Your task to perform on an android device: delete browsing data in the chrome app Image 0: 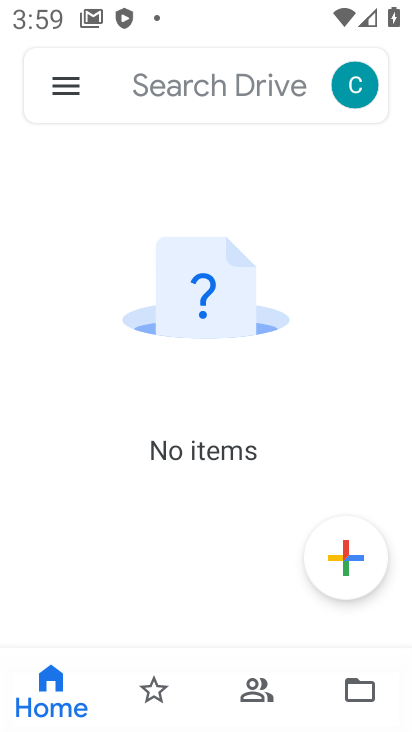
Step 0: press back button
Your task to perform on an android device: delete browsing data in the chrome app Image 1: 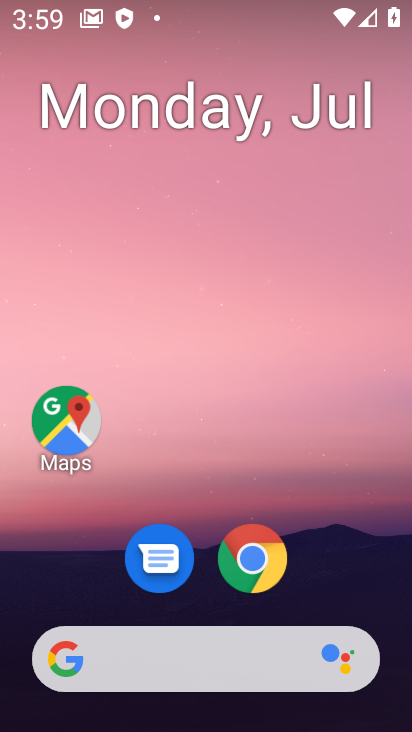
Step 1: click (229, 562)
Your task to perform on an android device: delete browsing data in the chrome app Image 2: 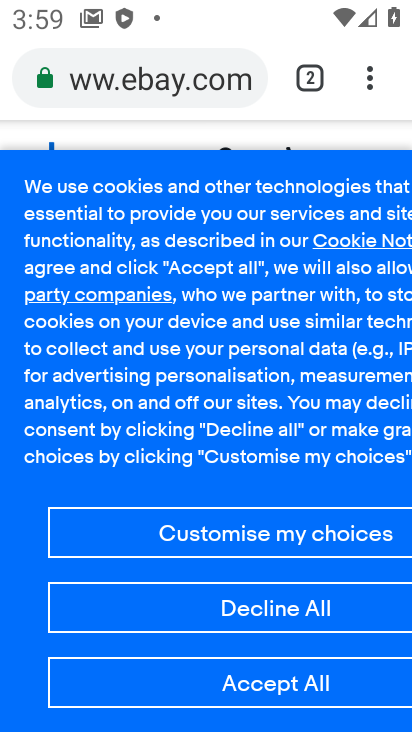
Step 2: drag from (374, 74) to (116, 264)
Your task to perform on an android device: delete browsing data in the chrome app Image 3: 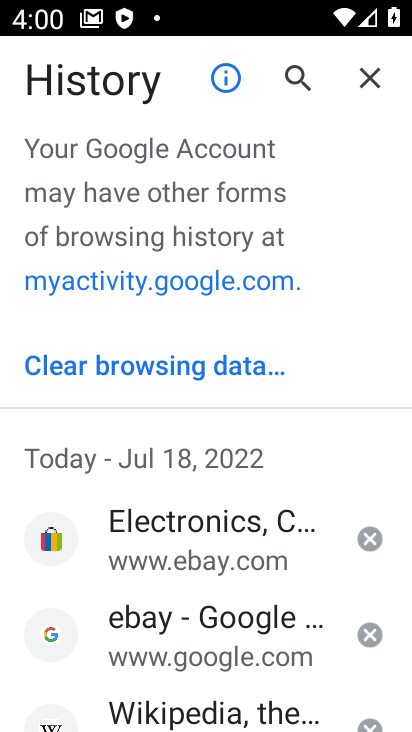
Step 3: click (82, 372)
Your task to perform on an android device: delete browsing data in the chrome app Image 4: 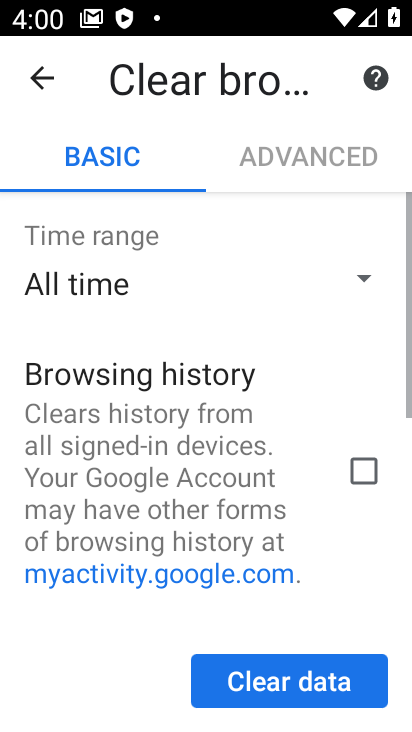
Step 4: drag from (226, 521) to (255, 372)
Your task to perform on an android device: delete browsing data in the chrome app Image 5: 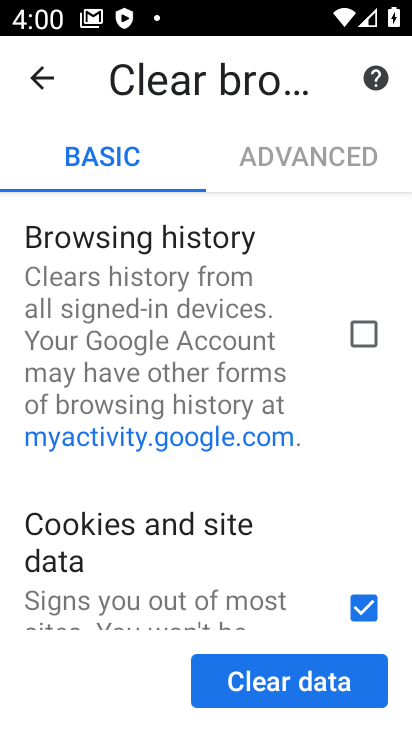
Step 5: click (373, 323)
Your task to perform on an android device: delete browsing data in the chrome app Image 6: 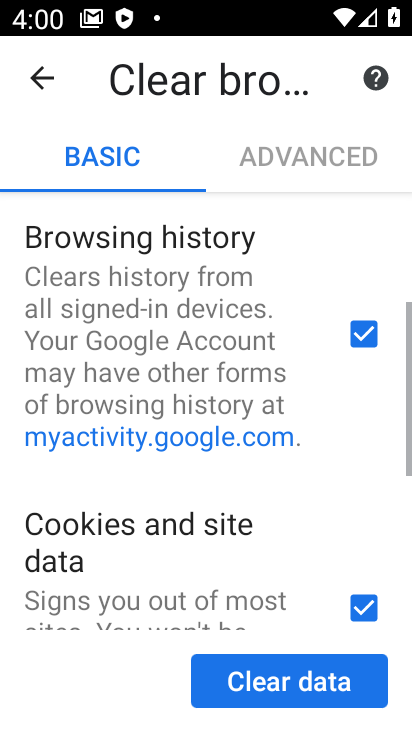
Step 6: drag from (209, 551) to (244, 261)
Your task to perform on an android device: delete browsing data in the chrome app Image 7: 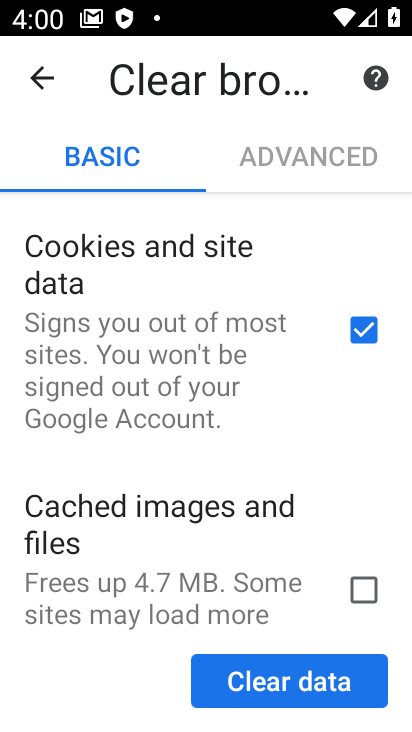
Step 7: click (352, 588)
Your task to perform on an android device: delete browsing data in the chrome app Image 8: 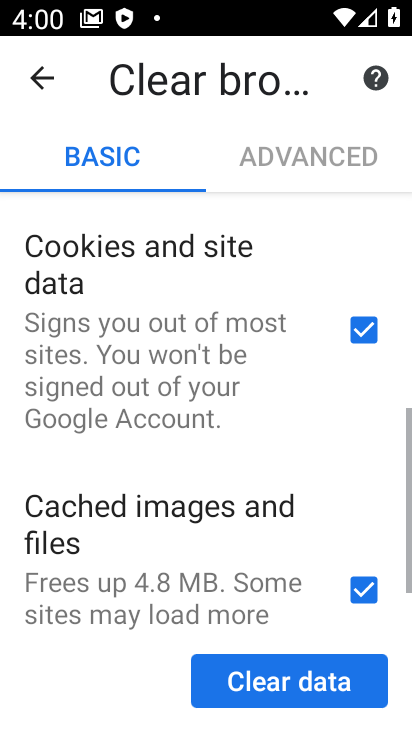
Step 8: click (301, 670)
Your task to perform on an android device: delete browsing data in the chrome app Image 9: 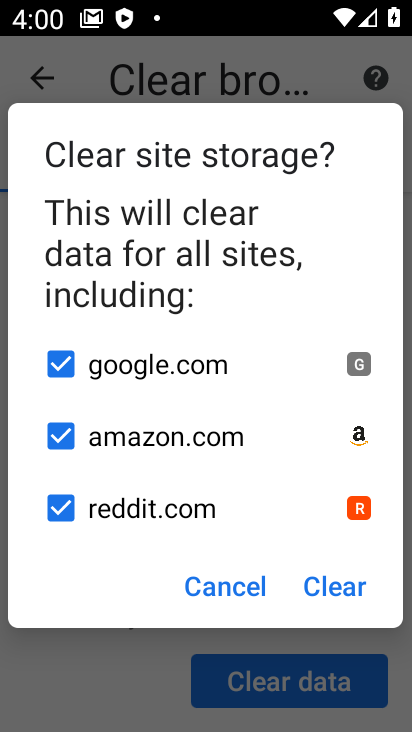
Step 9: click (331, 589)
Your task to perform on an android device: delete browsing data in the chrome app Image 10: 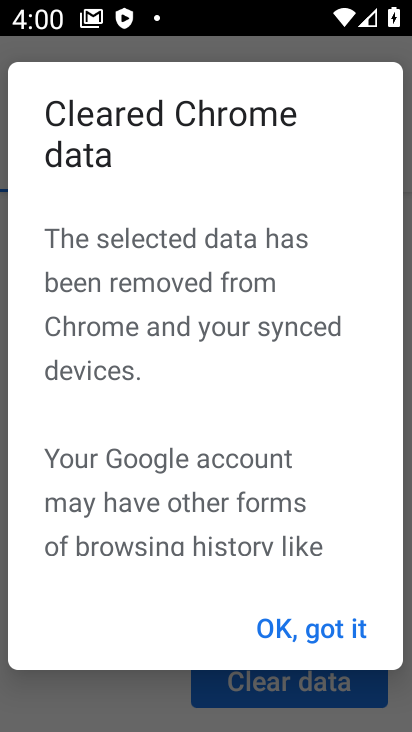
Step 10: click (294, 623)
Your task to perform on an android device: delete browsing data in the chrome app Image 11: 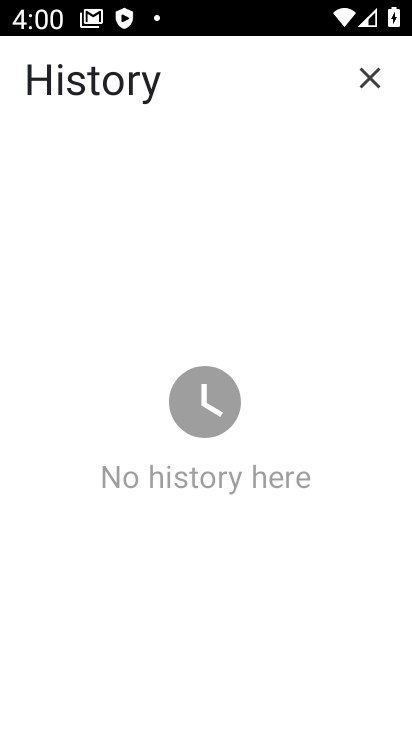
Step 11: task complete